Your task to perform on an android device: turn off sleep mode Image 0: 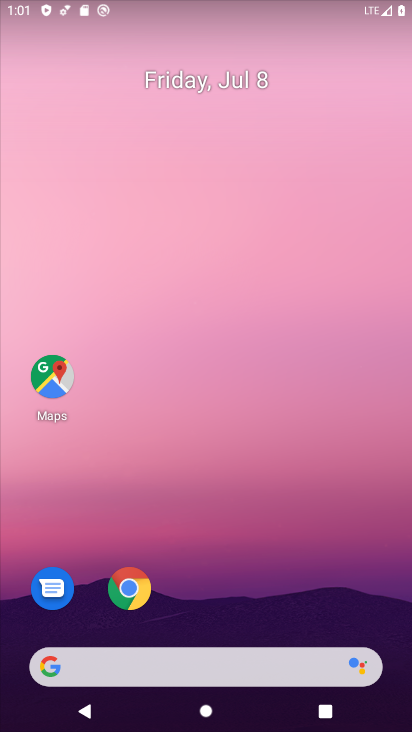
Step 0: drag from (200, 571) to (188, 4)
Your task to perform on an android device: turn off sleep mode Image 1: 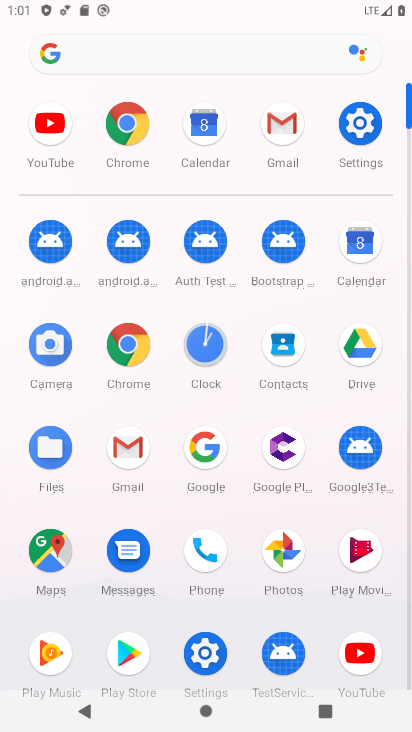
Step 1: click (208, 651)
Your task to perform on an android device: turn off sleep mode Image 2: 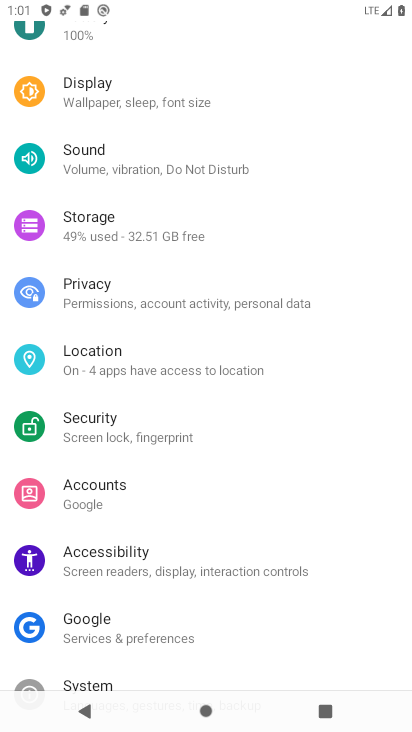
Step 2: drag from (174, 194) to (162, 692)
Your task to perform on an android device: turn off sleep mode Image 3: 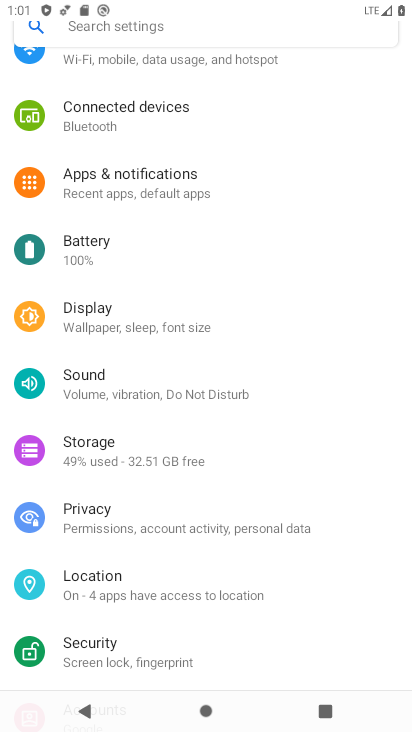
Step 3: click (177, 23)
Your task to perform on an android device: turn off sleep mode Image 4: 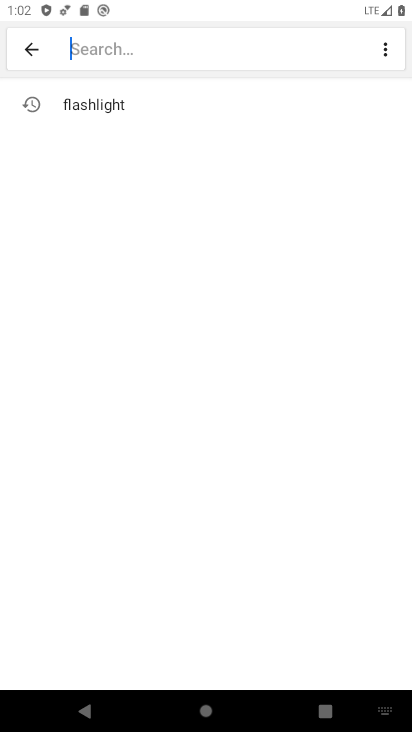
Step 4: type "sleep mode"
Your task to perform on an android device: turn off sleep mode Image 5: 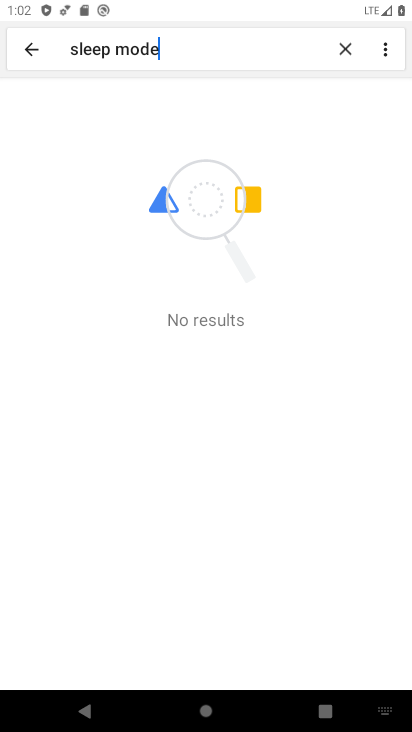
Step 5: task complete